Your task to perform on an android device: Do I have any events this weekend? Image 0: 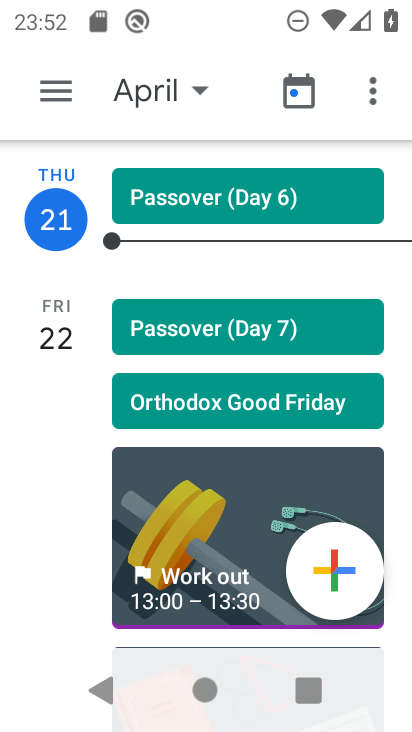
Step 0: press home button
Your task to perform on an android device: Do I have any events this weekend? Image 1: 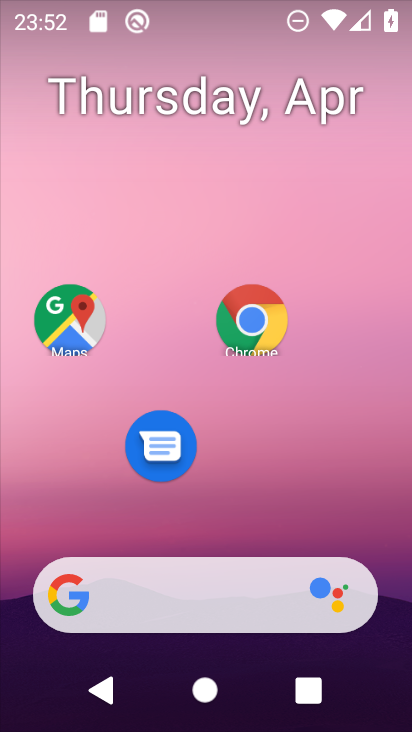
Step 1: drag from (204, 513) to (148, 108)
Your task to perform on an android device: Do I have any events this weekend? Image 2: 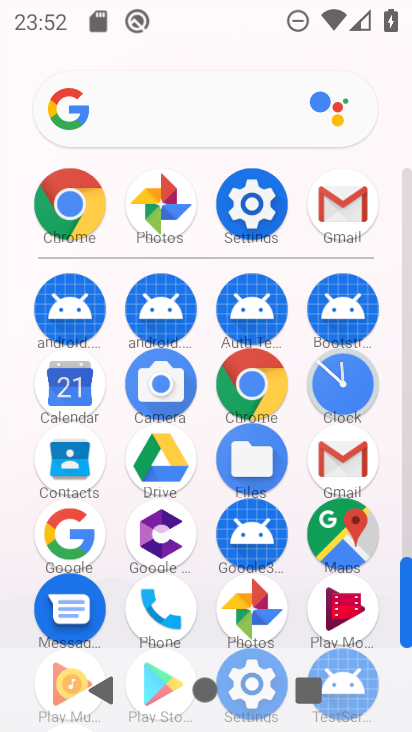
Step 2: click (68, 369)
Your task to perform on an android device: Do I have any events this weekend? Image 3: 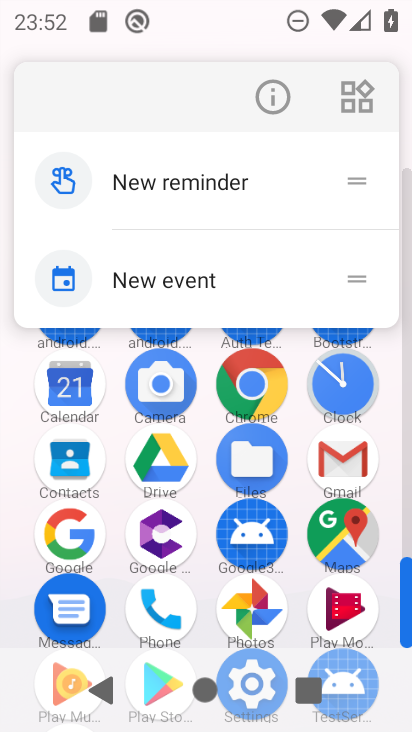
Step 3: click (282, 94)
Your task to perform on an android device: Do I have any events this weekend? Image 4: 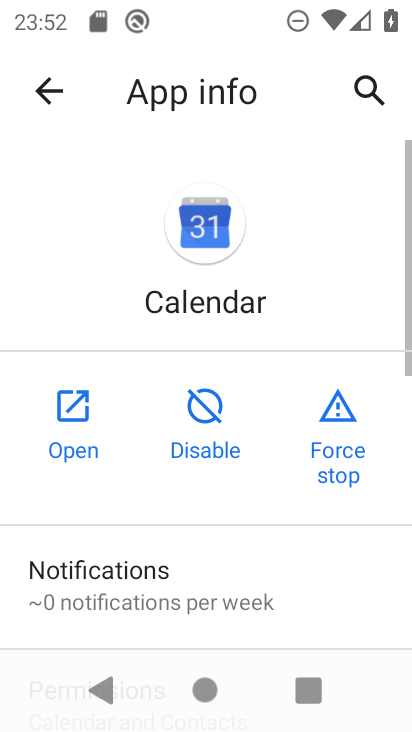
Step 4: click (78, 403)
Your task to perform on an android device: Do I have any events this weekend? Image 5: 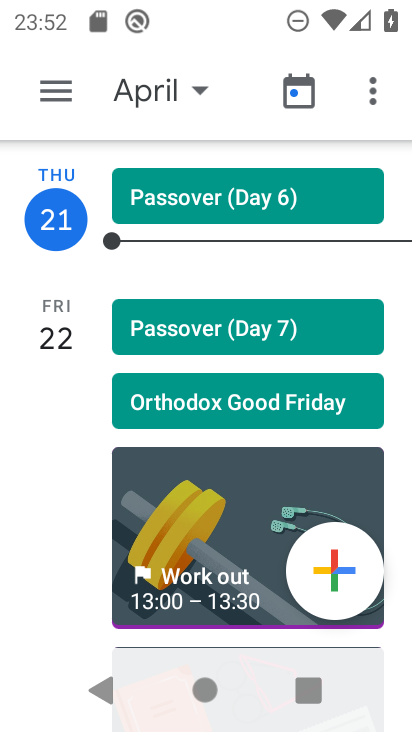
Step 5: click (175, 90)
Your task to perform on an android device: Do I have any events this weekend? Image 6: 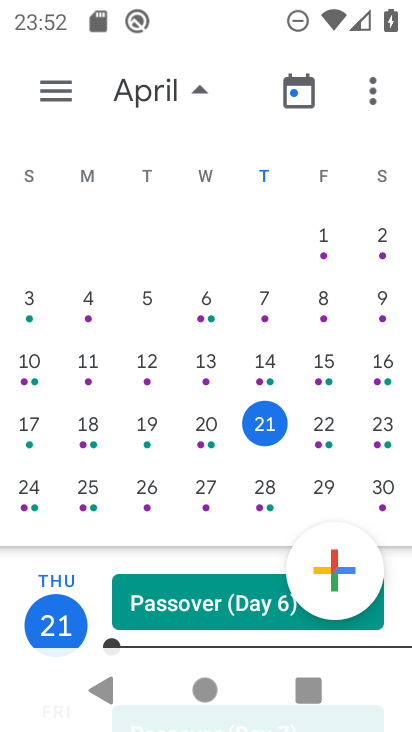
Step 6: click (154, 89)
Your task to perform on an android device: Do I have any events this weekend? Image 7: 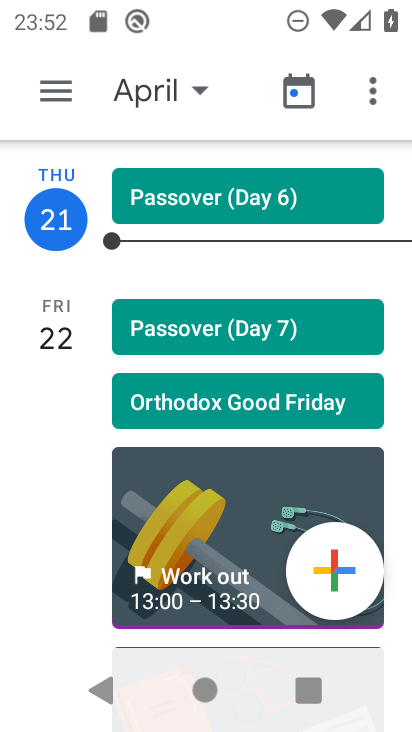
Step 7: click (54, 88)
Your task to perform on an android device: Do I have any events this weekend? Image 8: 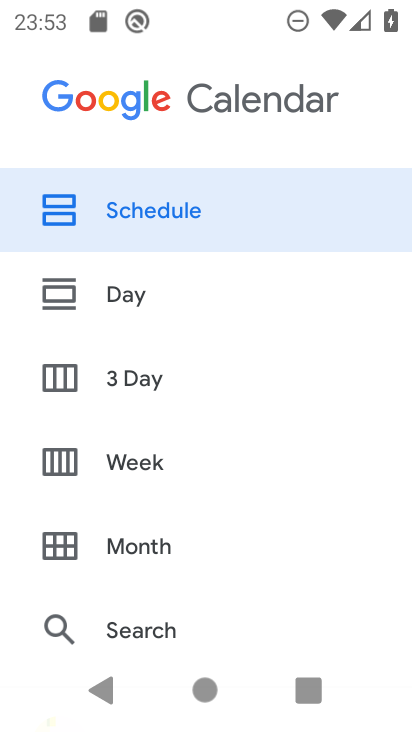
Step 8: click (176, 196)
Your task to perform on an android device: Do I have any events this weekend? Image 9: 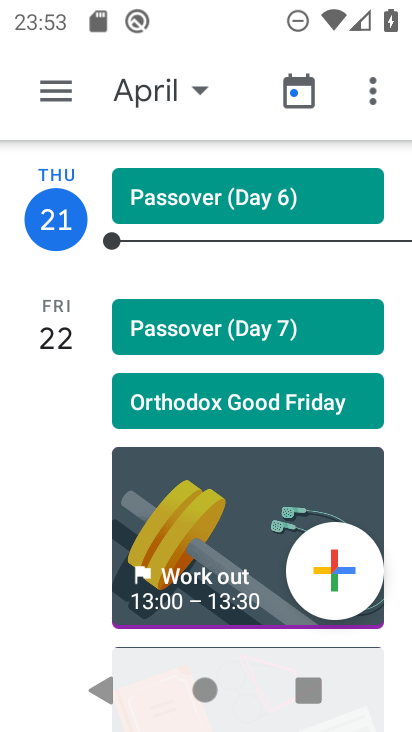
Step 9: click (168, 95)
Your task to perform on an android device: Do I have any events this weekend? Image 10: 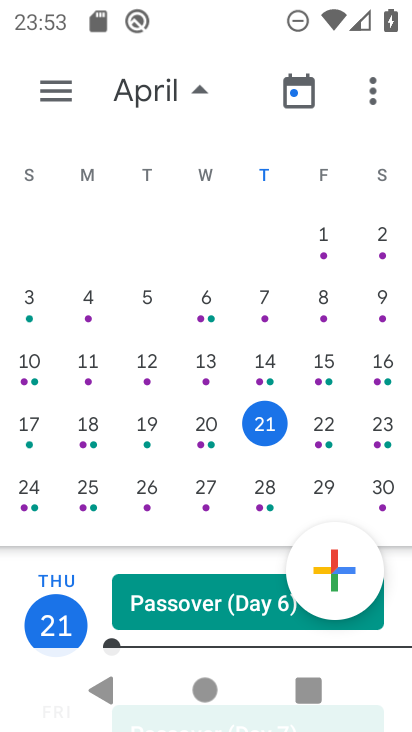
Step 10: click (379, 434)
Your task to perform on an android device: Do I have any events this weekend? Image 11: 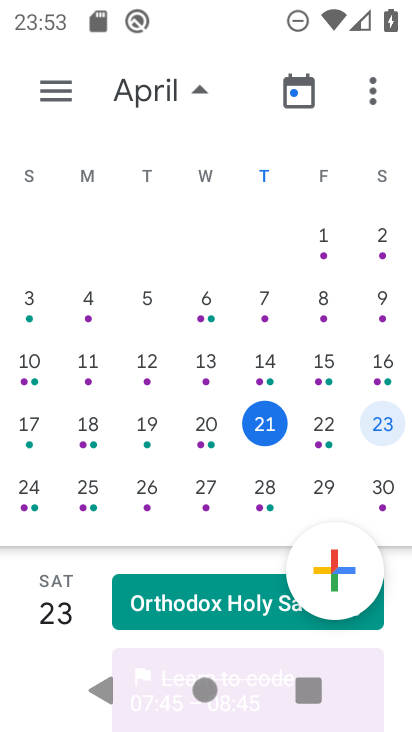
Step 11: task complete